Your task to perform on an android device: toggle priority inbox in the gmail app Image 0: 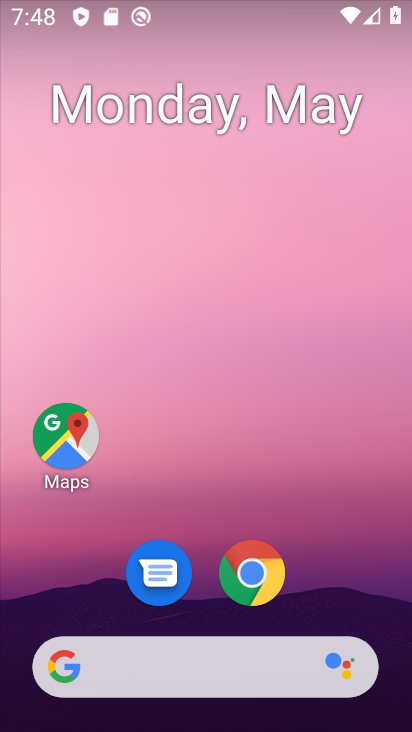
Step 0: drag from (384, 585) to (322, 91)
Your task to perform on an android device: toggle priority inbox in the gmail app Image 1: 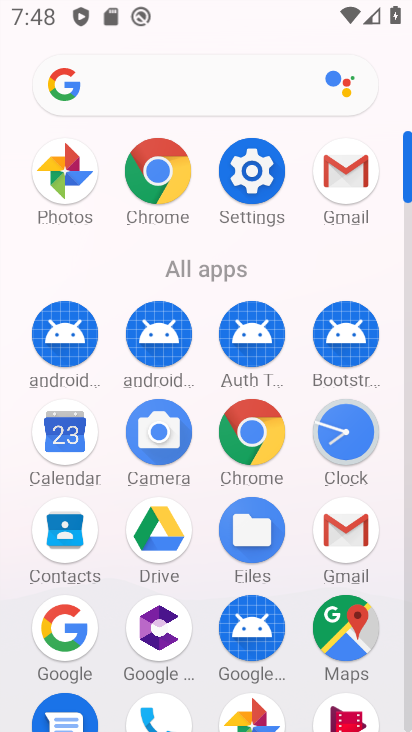
Step 1: click (354, 183)
Your task to perform on an android device: toggle priority inbox in the gmail app Image 2: 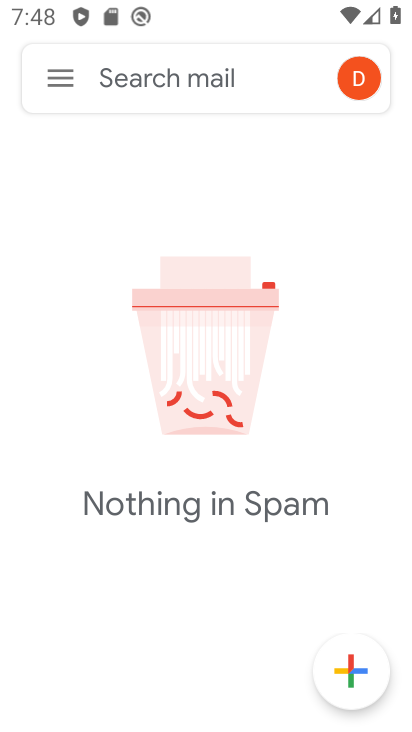
Step 2: click (68, 92)
Your task to perform on an android device: toggle priority inbox in the gmail app Image 3: 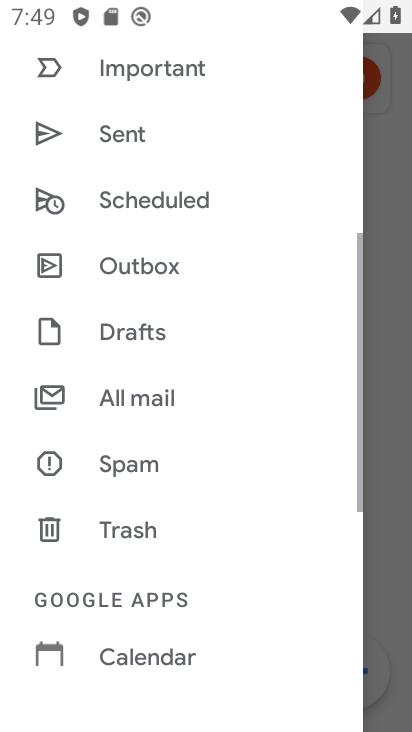
Step 3: drag from (137, 657) to (166, 365)
Your task to perform on an android device: toggle priority inbox in the gmail app Image 4: 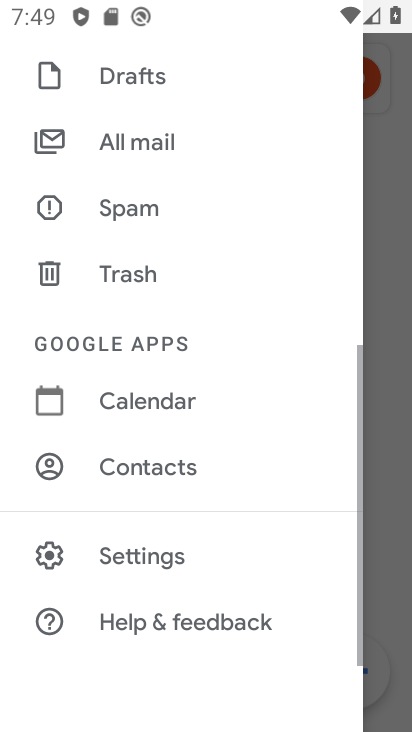
Step 4: click (213, 566)
Your task to perform on an android device: toggle priority inbox in the gmail app Image 5: 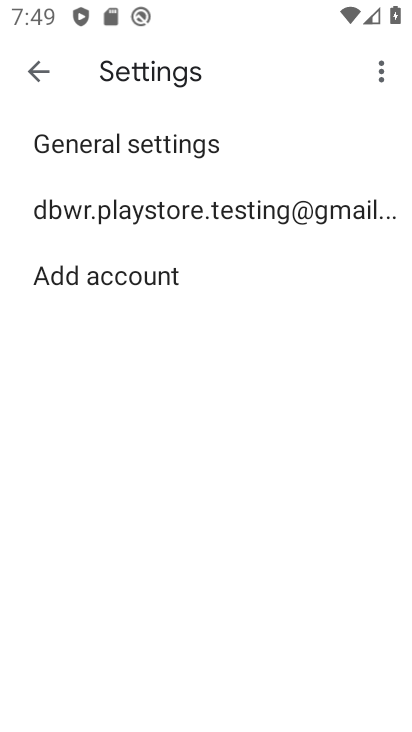
Step 5: click (145, 225)
Your task to perform on an android device: toggle priority inbox in the gmail app Image 6: 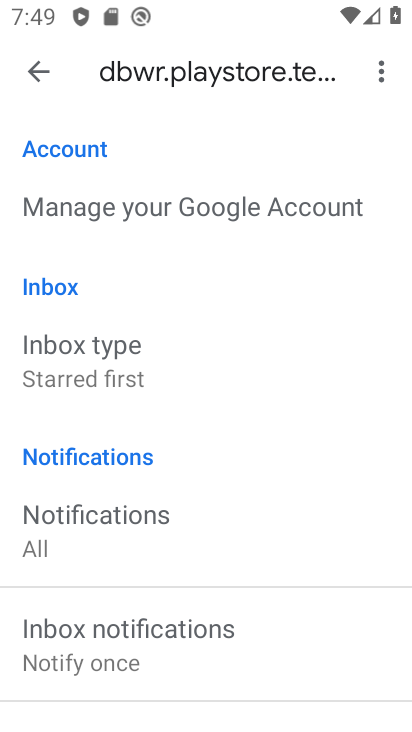
Step 6: click (158, 349)
Your task to perform on an android device: toggle priority inbox in the gmail app Image 7: 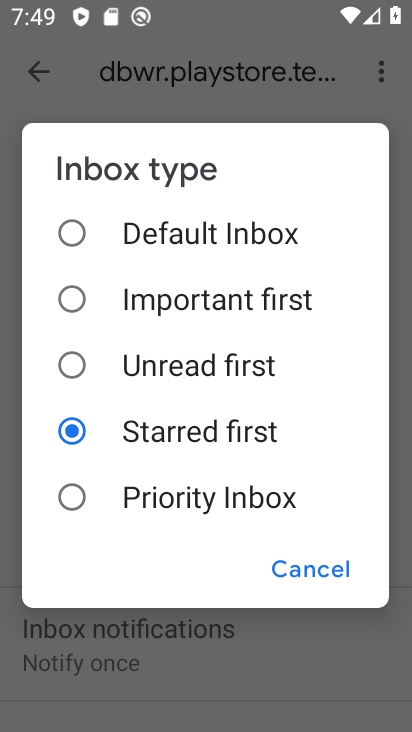
Step 7: click (149, 487)
Your task to perform on an android device: toggle priority inbox in the gmail app Image 8: 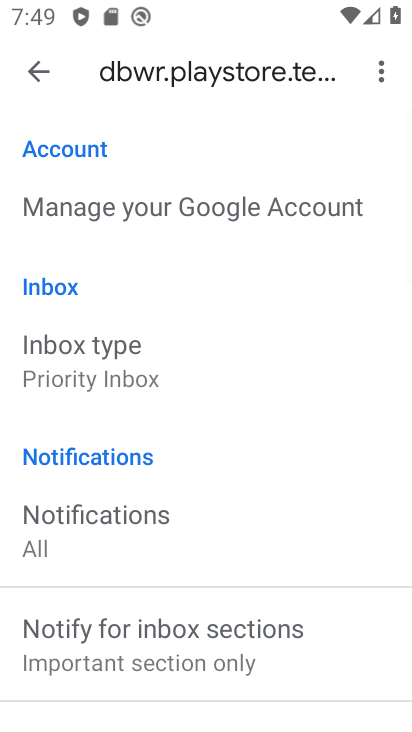
Step 8: task complete